Your task to perform on an android device: Go to Yahoo.com Image 0: 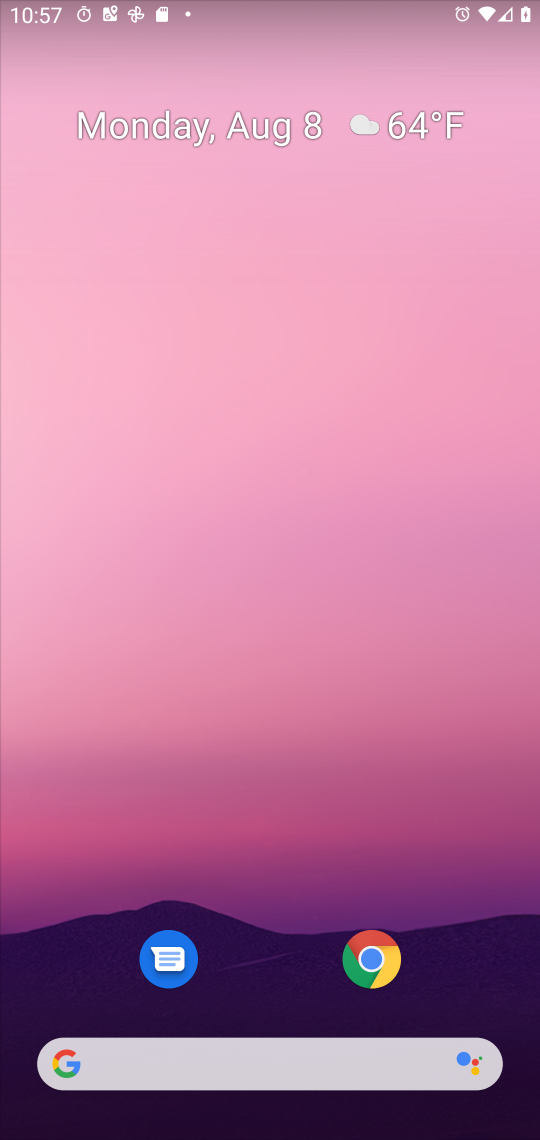
Step 0: drag from (466, 943) to (232, 59)
Your task to perform on an android device: Go to Yahoo.com Image 1: 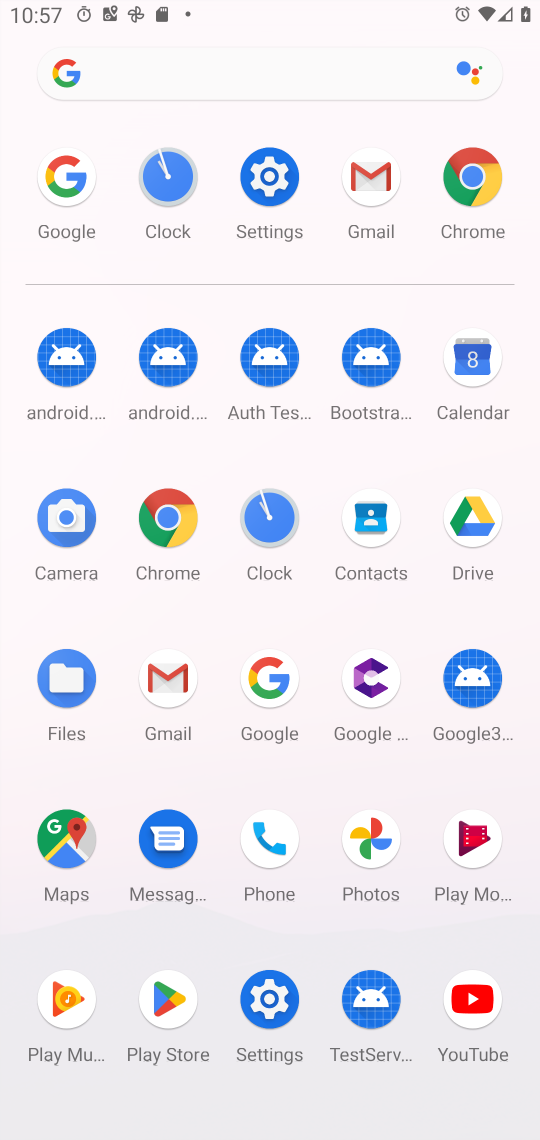
Step 1: click (266, 685)
Your task to perform on an android device: Go to Yahoo.com Image 2: 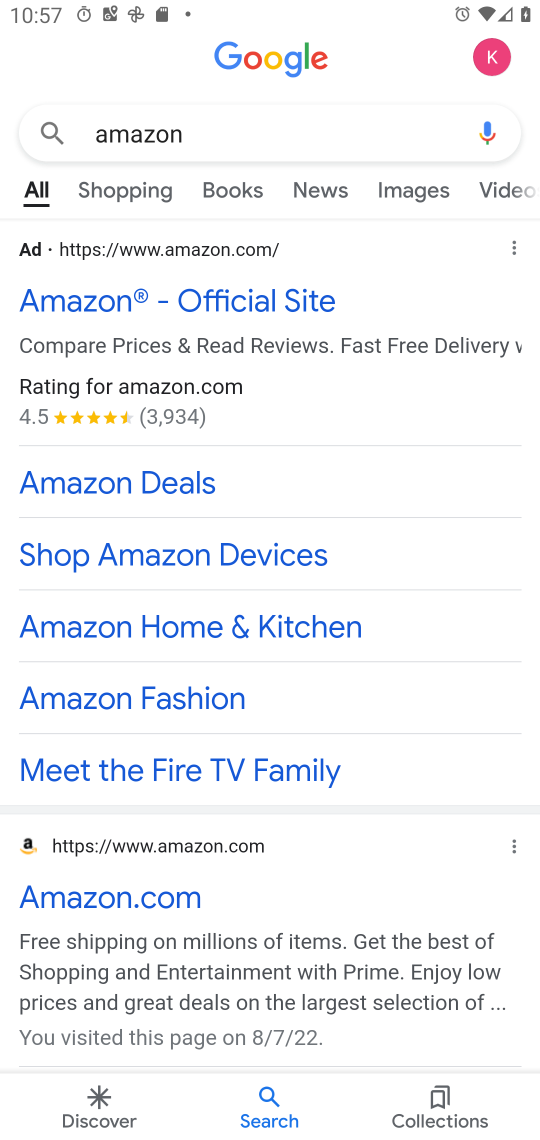
Step 2: press back button
Your task to perform on an android device: Go to Yahoo.com Image 3: 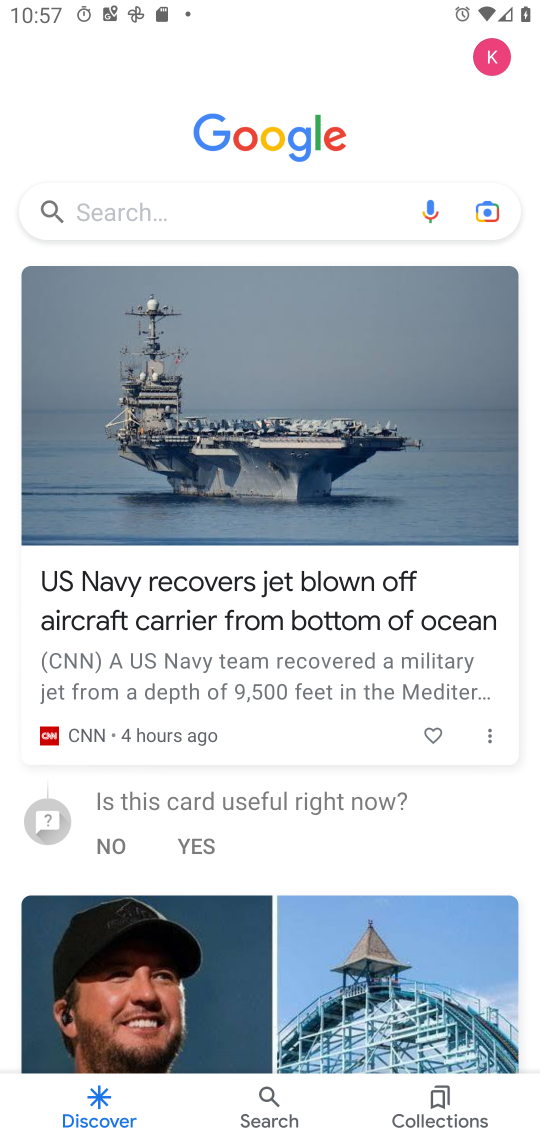
Step 3: click (124, 206)
Your task to perform on an android device: Go to Yahoo.com Image 4: 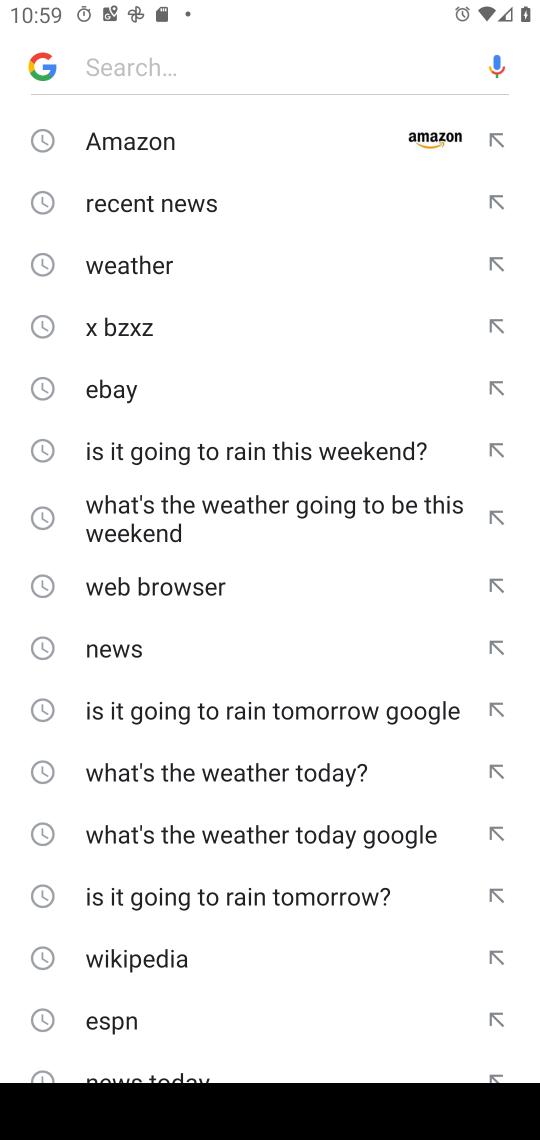
Step 4: type "Yahoo.com"
Your task to perform on an android device: Go to Yahoo.com Image 5: 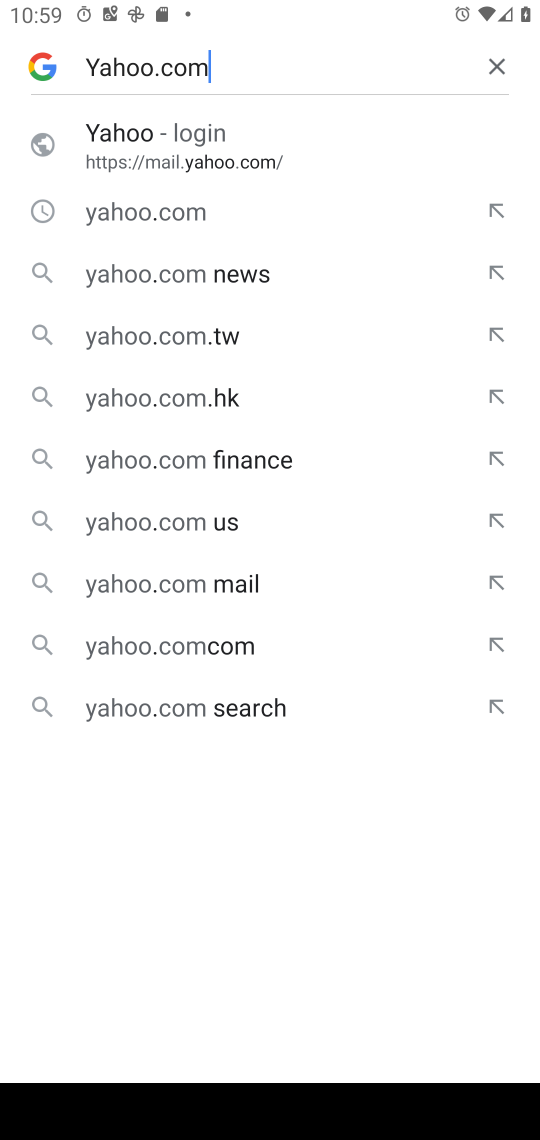
Step 5: click (177, 158)
Your task to perform on an android device: Go to Yahoo.com Image 6: 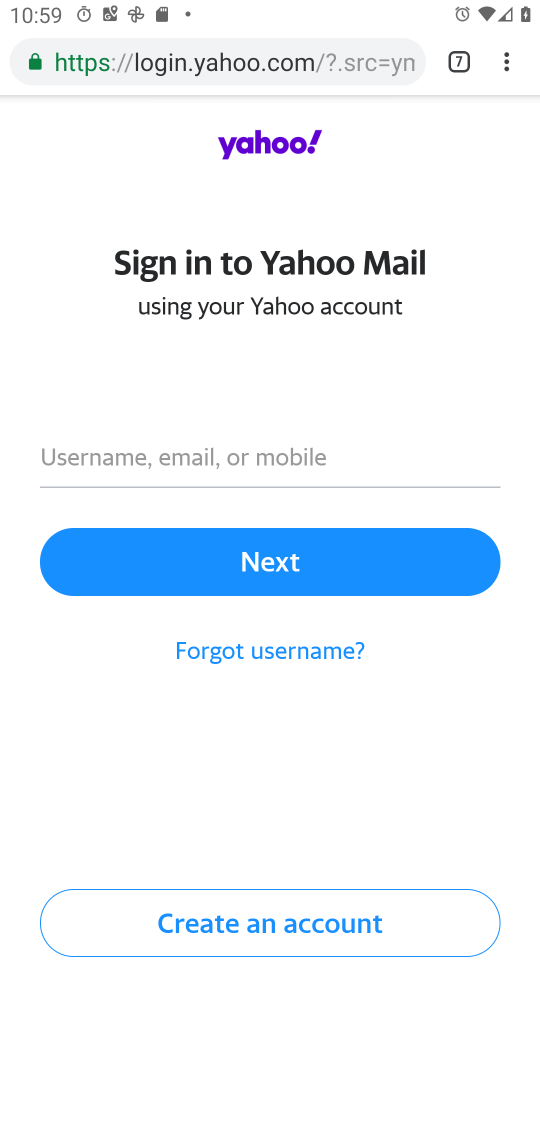
Step 6: task complete